Your task to perform on an android device: Open maps Image 0: 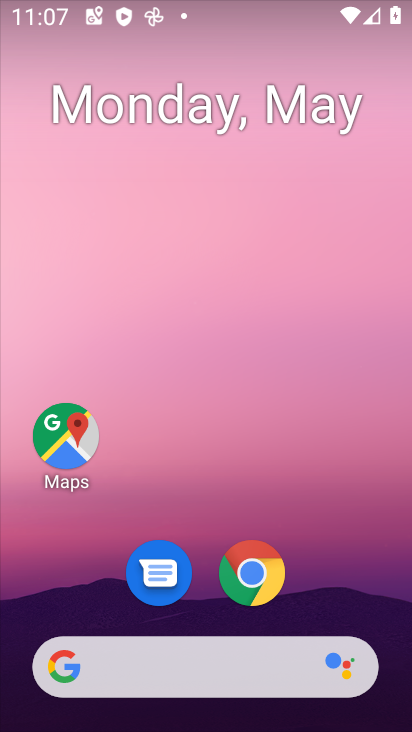
Step 0: click (50, 454)
Your task to perform on an android device: Open maps Image 1: 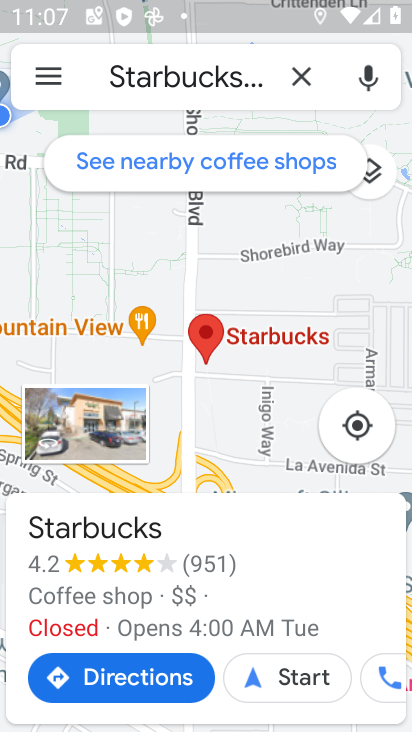
Step 1: task complete